Your task to perform on an android device: delete browsing data in the chrome app Image 0: 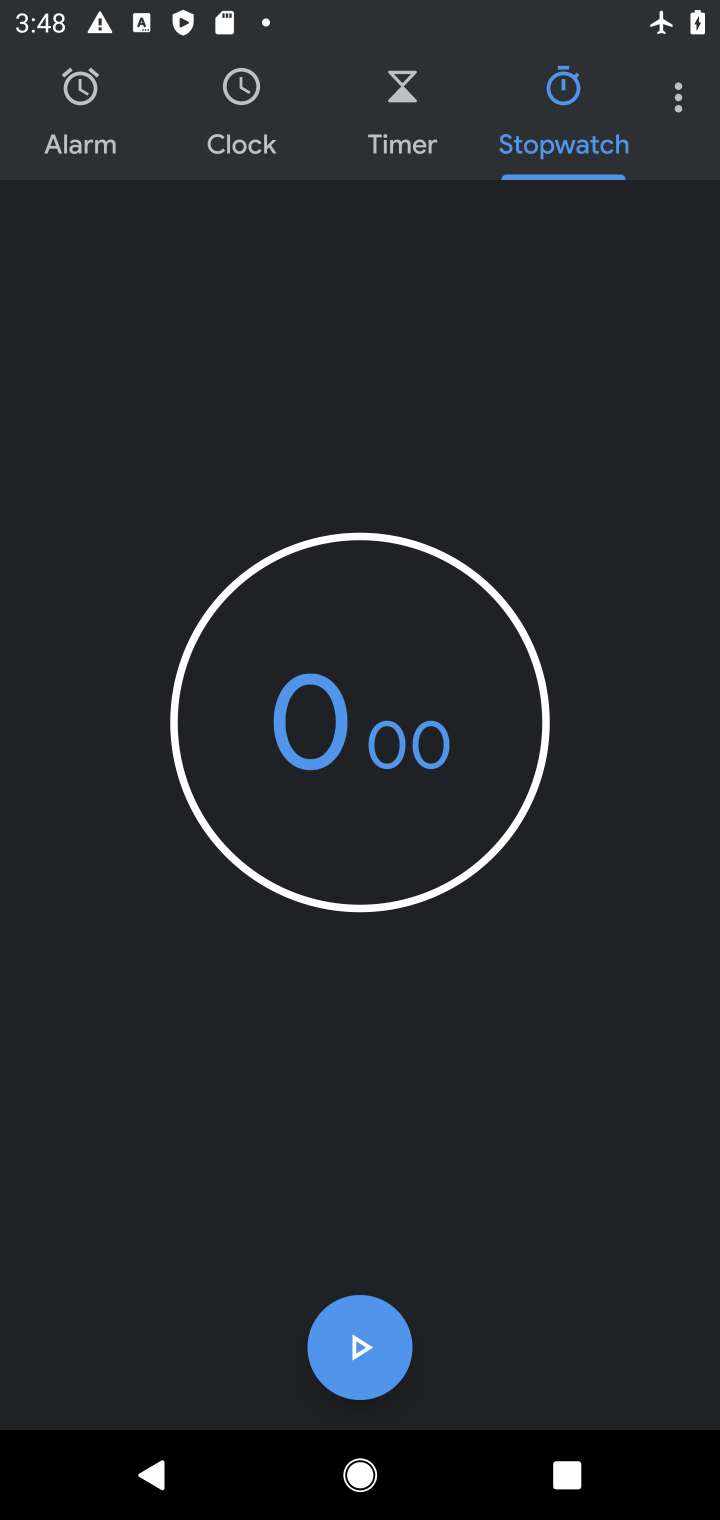
Step 0: press home button
Your task to perform on an android device: delete browsing data in the chrome app Image 1: 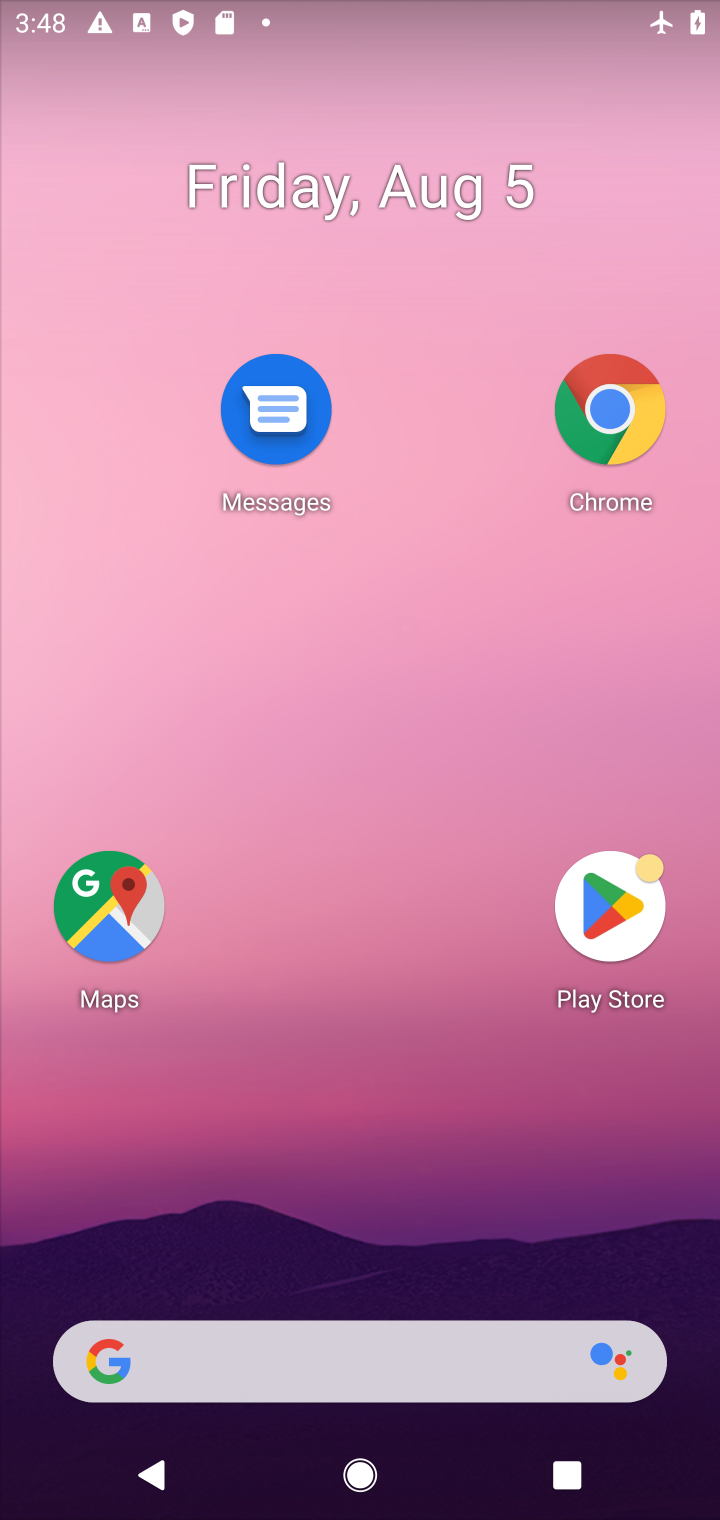
Step 1: click (570, 442)
Your task to perform on an android device: delete browsing data in the chrome app Image 2: 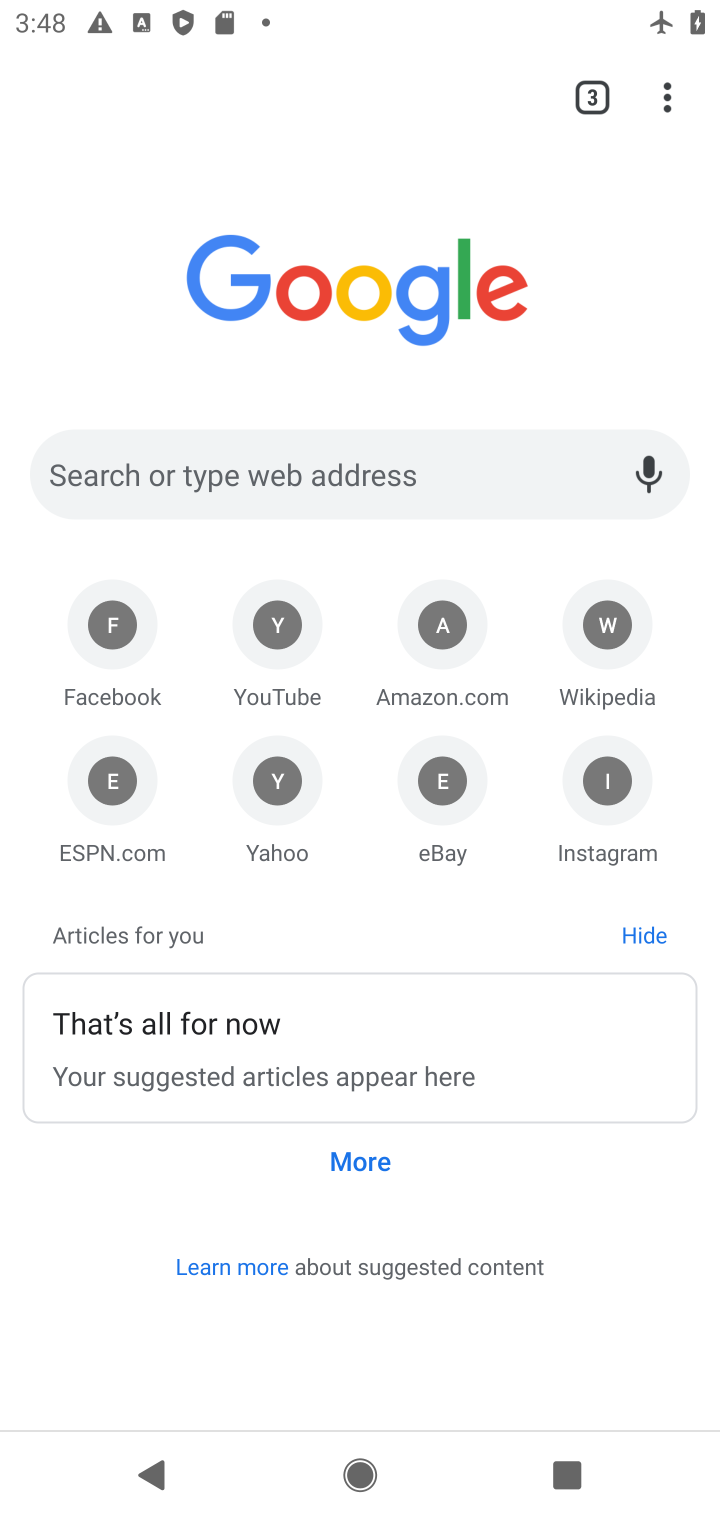
Step 2: click (662, 97)
Your task to perform on an android device: delete browsing data in the chrome app Image 3: 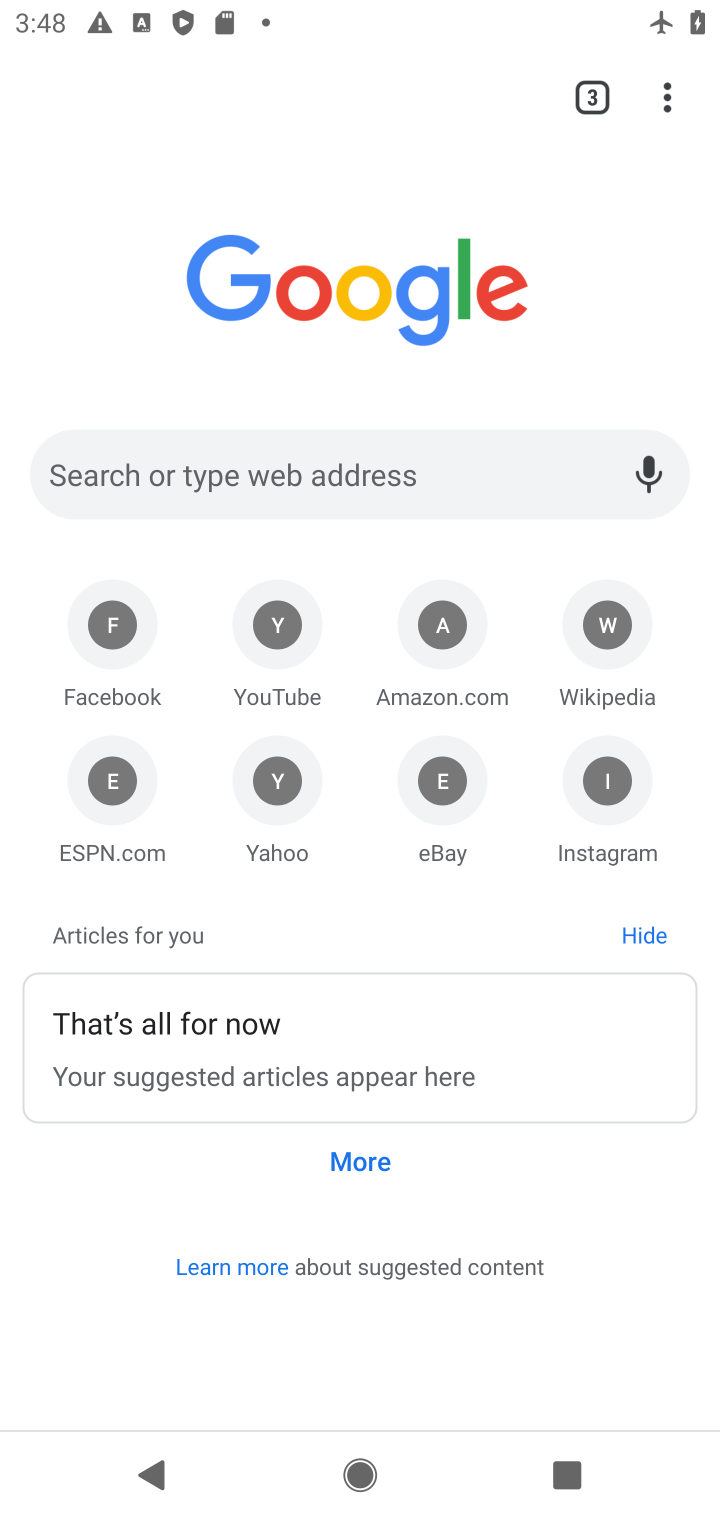
Step 3: click (662, 97)
Your task to perform on an android device: delete browsing data in the chrome app Image 4: 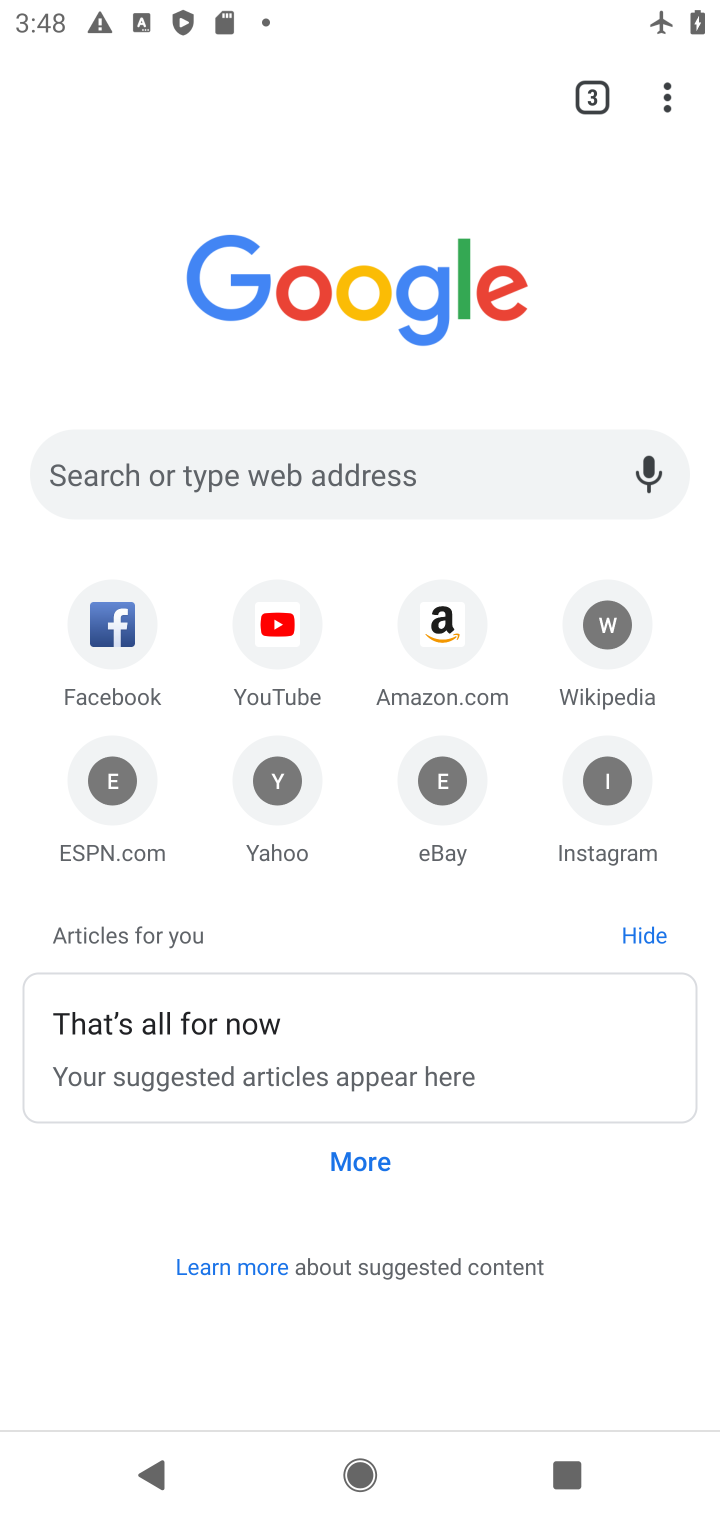
Step 4: task complete